Your task to perform on an android device: open a new tab in the chrome app Image 0: 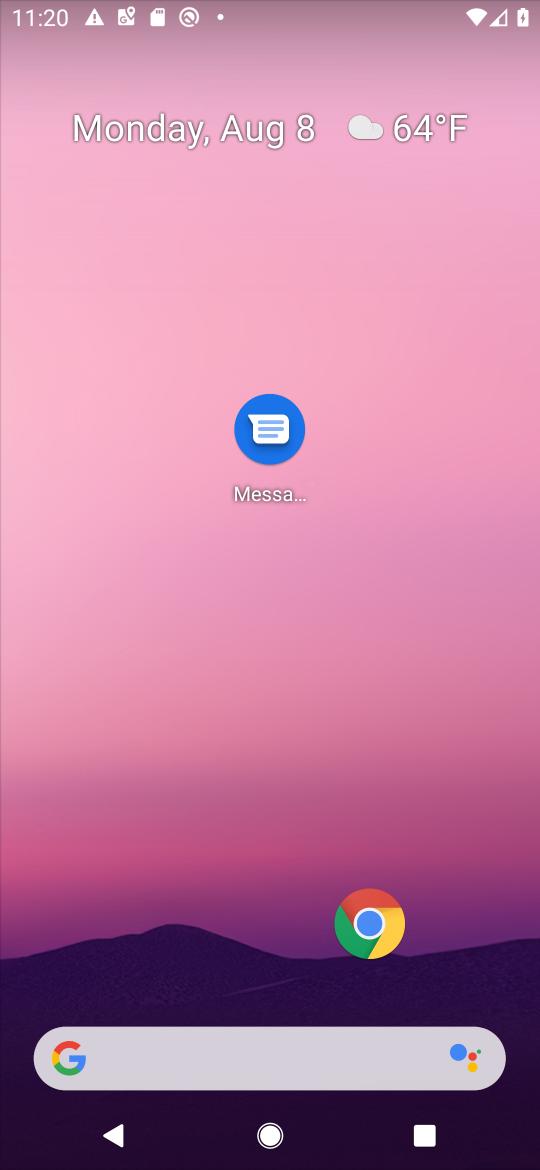
Step 0: click (343, 907)
Your task to perform on an android device: open a new tab in the chrome app Image 1: 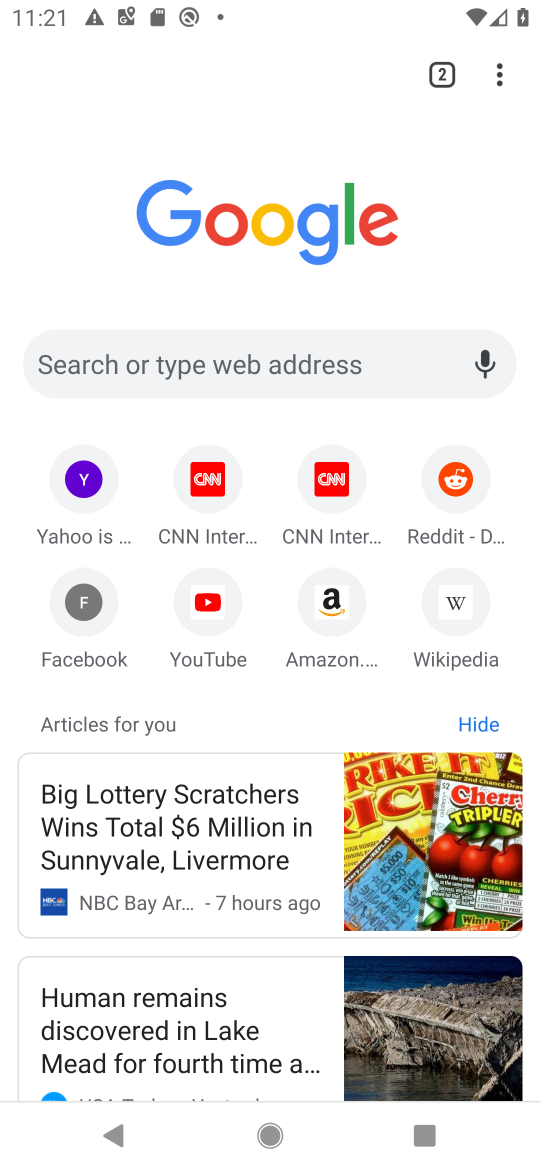
Step 1: click (507, 70)
Your task to perform on an android device: open a new tab in the chrome app Image 2: 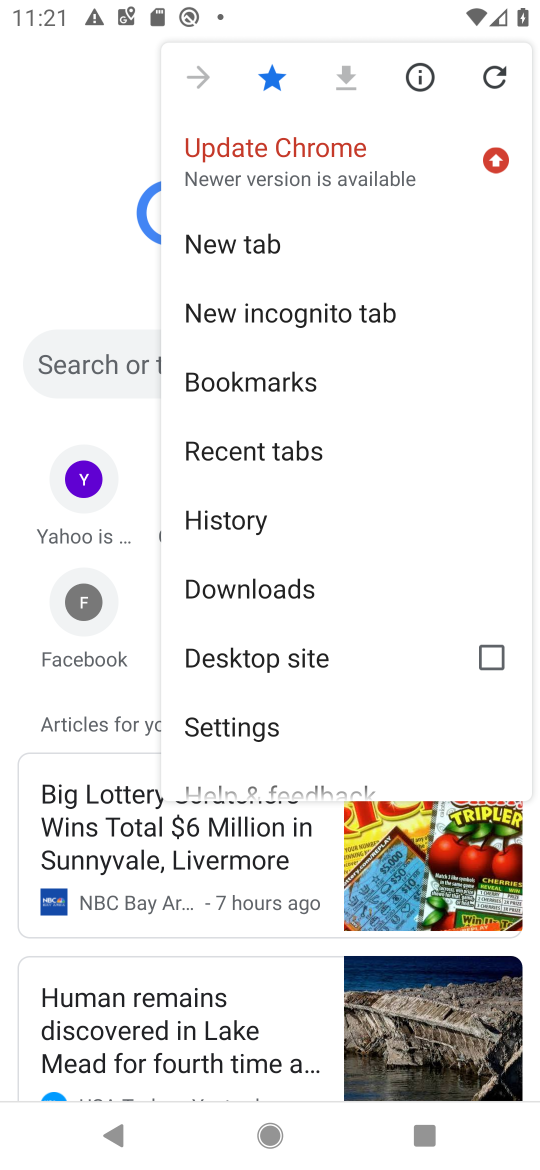
Step 2: click (244, 255)
Your task to perform on an android device: open a new tab in the chrome app Image 3: 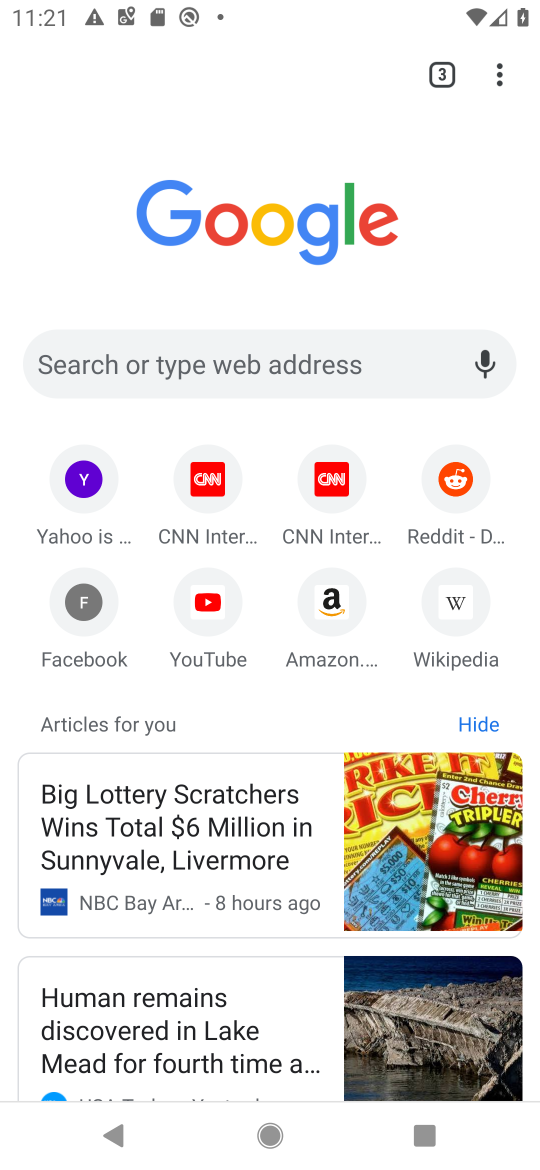
Step 3: task complete